Your task to perform on an android device: allow cookies in the chrome app Image 0: 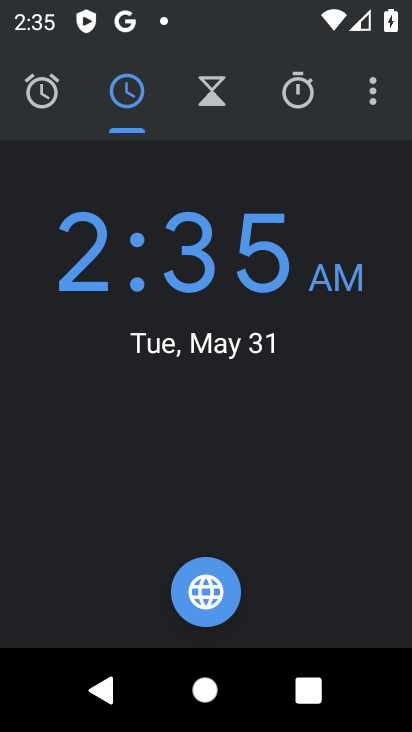
Step 0: press back button
Your task to perform on an android device: allow cookies in the chrome app Image 1: 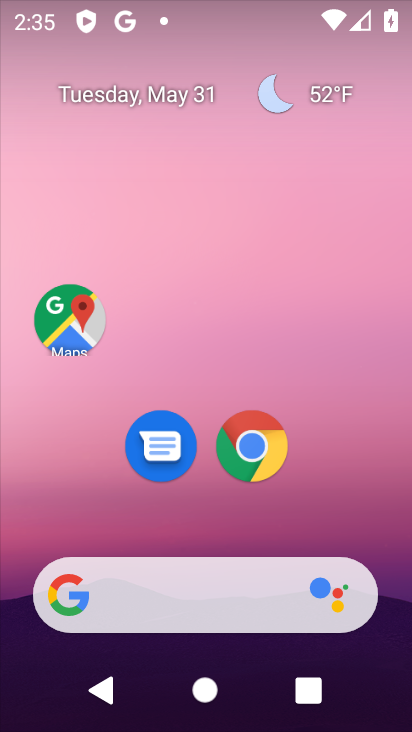
Step 1: click (257, 444)
Your task to perform on an android device: allow cookies in the chrome app Image 2: 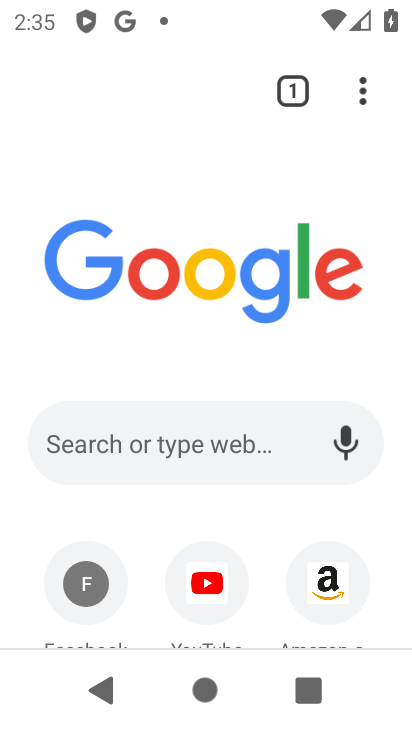
Step 2: click (365, 92)
Your task to perform on an android device: allow cookies in the chrome app Image 3: 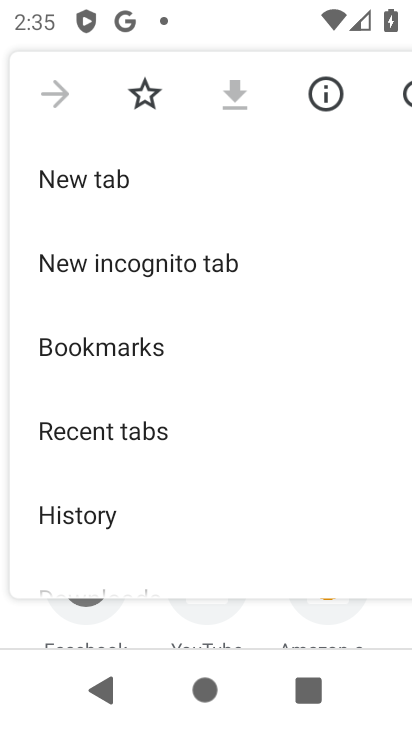
Step 3: drag from (170, 477) to (224, 378)
Your task to perform on an android device: allow cookies in the chrome app Image 4: 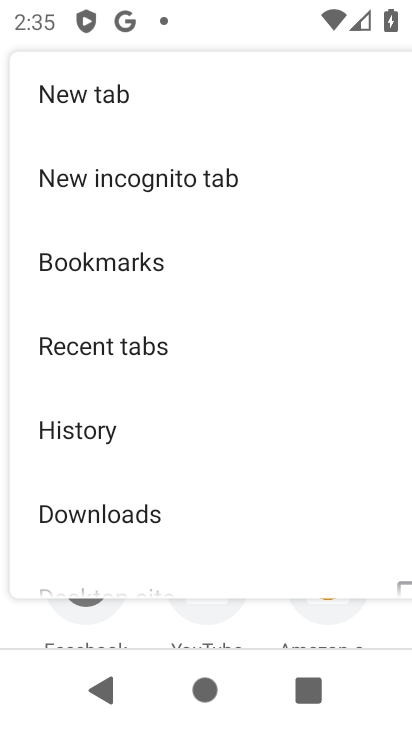
Step 4: drag from (129, 471) to (179, 377)
Your task to perform on an android device: allow cookies in the chrome app Image 5: 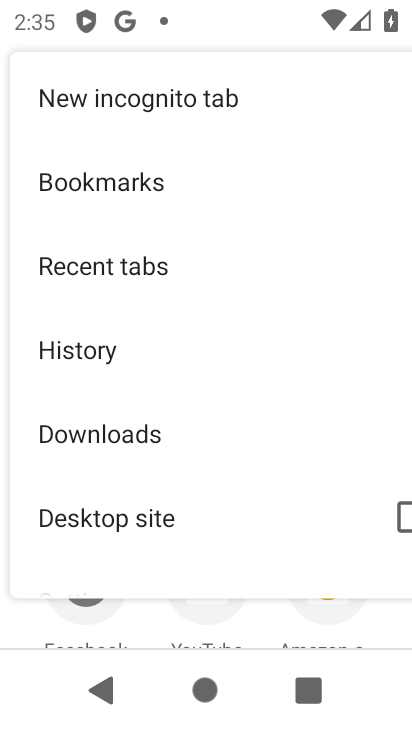
Step 5: drag from (145, 479) to (193, 385)
Your task to perform on an android device: allow cookies in the chrome app Image 6: 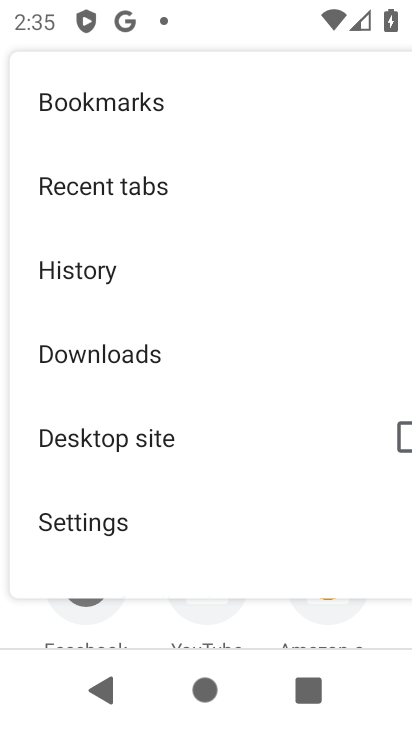
Step 6: click (103, 515)
Your task to perform on an android device: allow cookies in the chrome app Image 7: 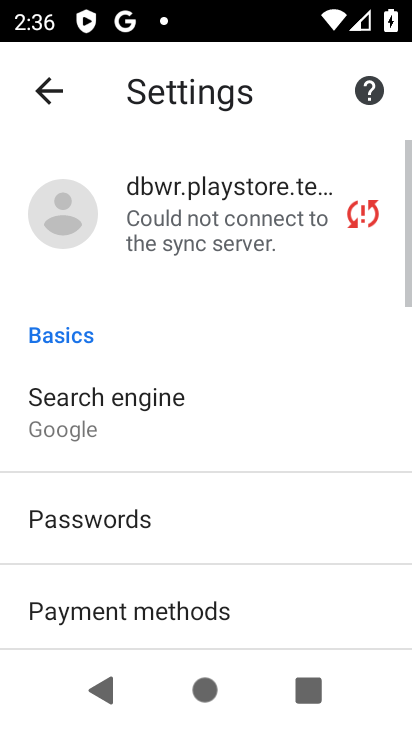
Step 7: drag from (153, 496) to (208, 382)
Your task to perform on an android device: allow cookies in the chrome app Image 8: 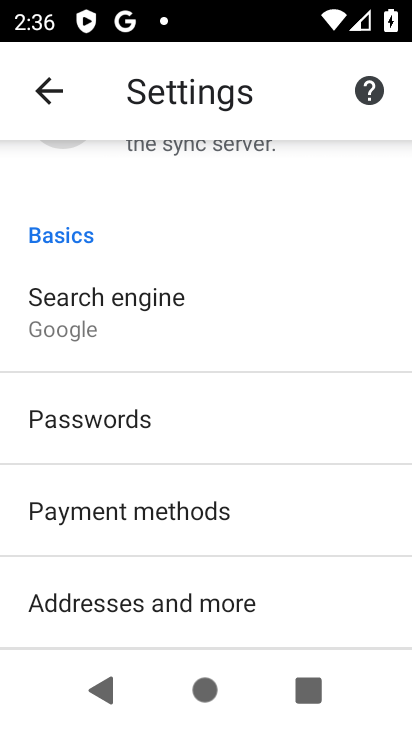
Step 8: drag from (164, 535) to (235, 386)
Your task to perform on an android device: allow cookies in the chrome app Image 9: 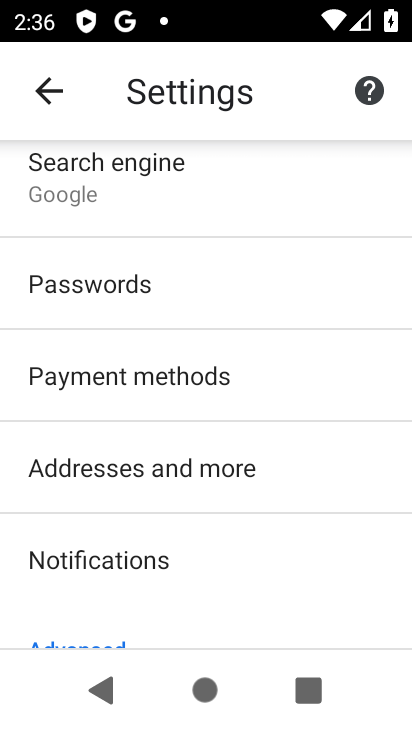
Step 9: drag from (188, 560) to (246, 445)
Your task to perform on an android device: allow cookies in the chrome app Image 10: 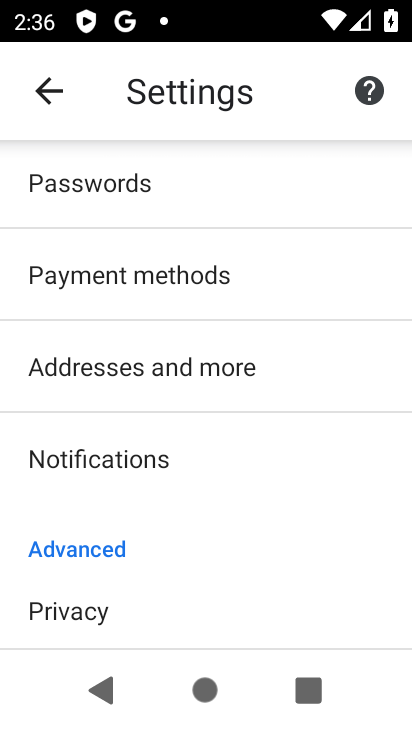
Step 10: drag from (168, 562) to (214, 459)
Your task to perform on an android device: allow cookies in the chrome app Image 11: 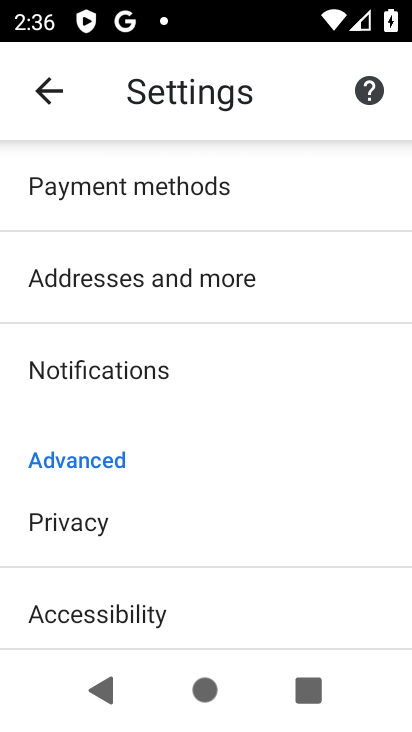
Step 11: drag from (212, 597) to (230, 469)
Your task to perform on an android device: allow cookies in the chrome app Image 12: 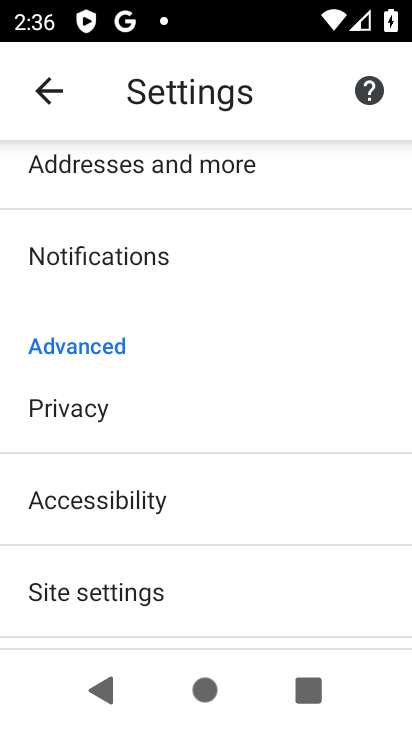
Step 12: click (156, 596)
Your task to perform on an android device: allow cookies in the chrome app Image 13: 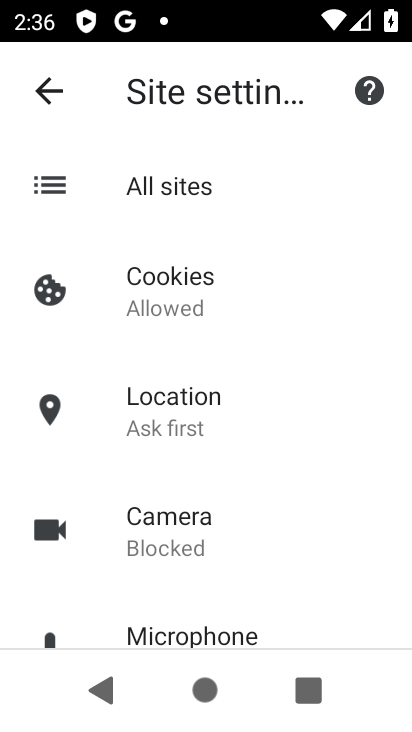
Step 13: click (171, 282)
Your task to perform on an android device: allow cookies in the chrome app Image 14: 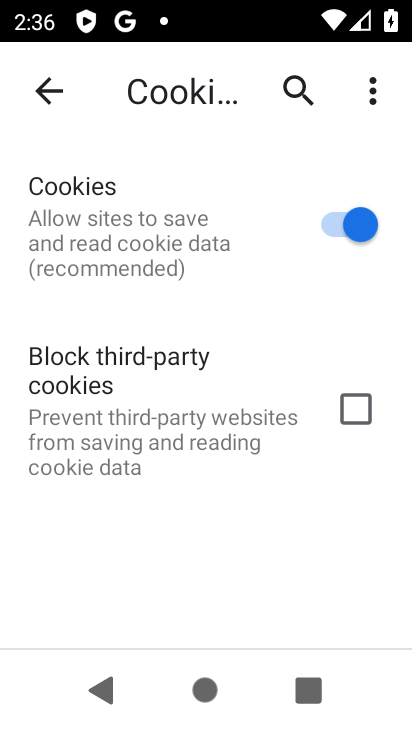
Step 14: click (342, 410)
Your task to perform on an android device: allow cookies in the chrome app Image 15: 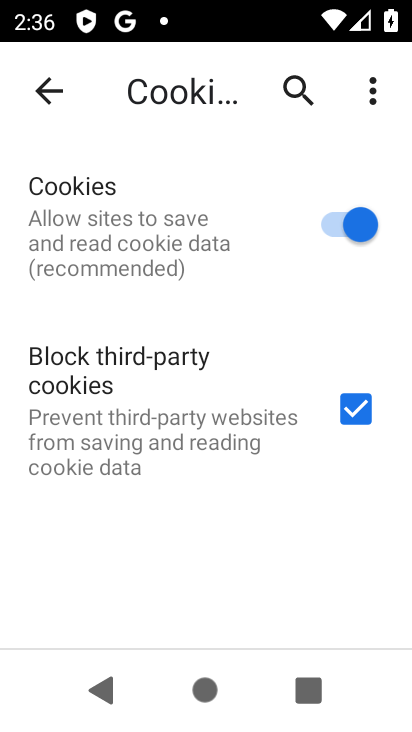
Step 15: task complete